Your task to perform on an android device: toggle airplane mode Image 0: 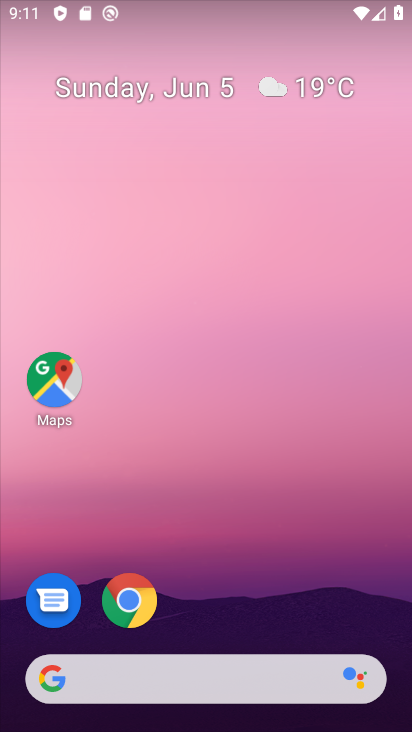
Step 0: task complete